Your task to perform on an android device: Go to Wikipedia Image 0: 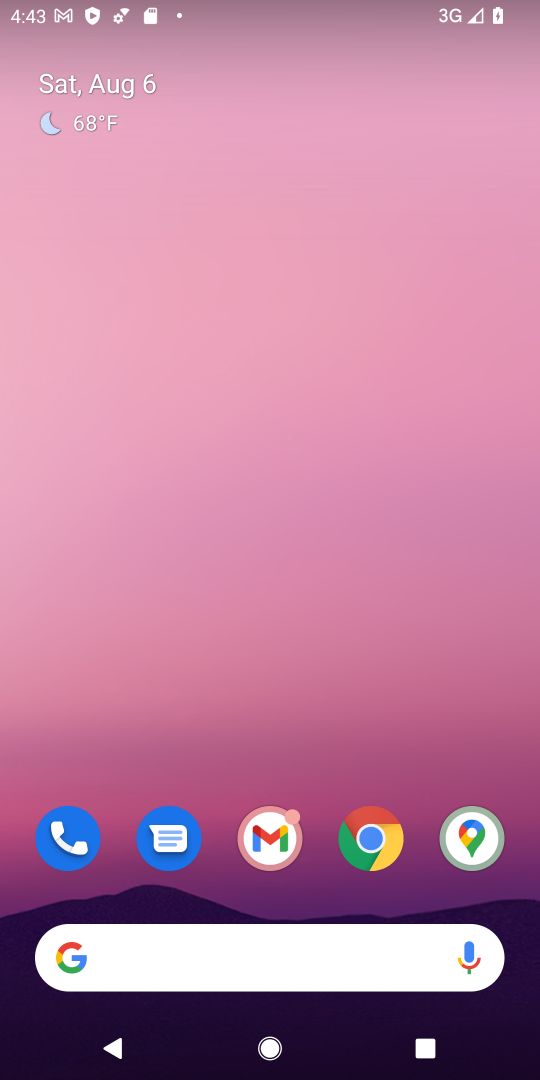
Step 0: press home button
Your task to perform on an android device: Go to Wikipedia Image 1: 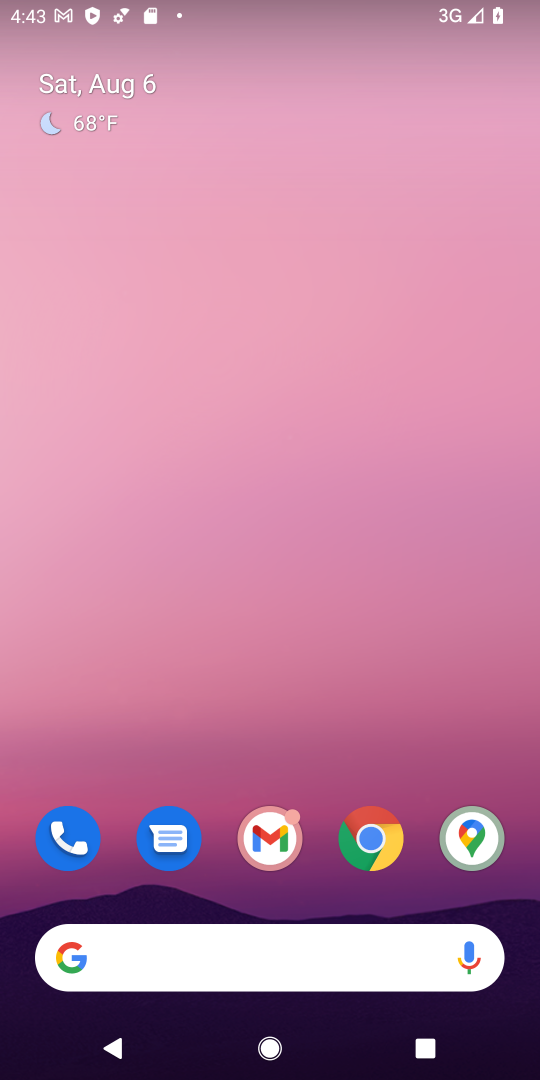
Step 1: click (361, 850)
Your task to perform on an android device: Go to Wikipedia Image 2: 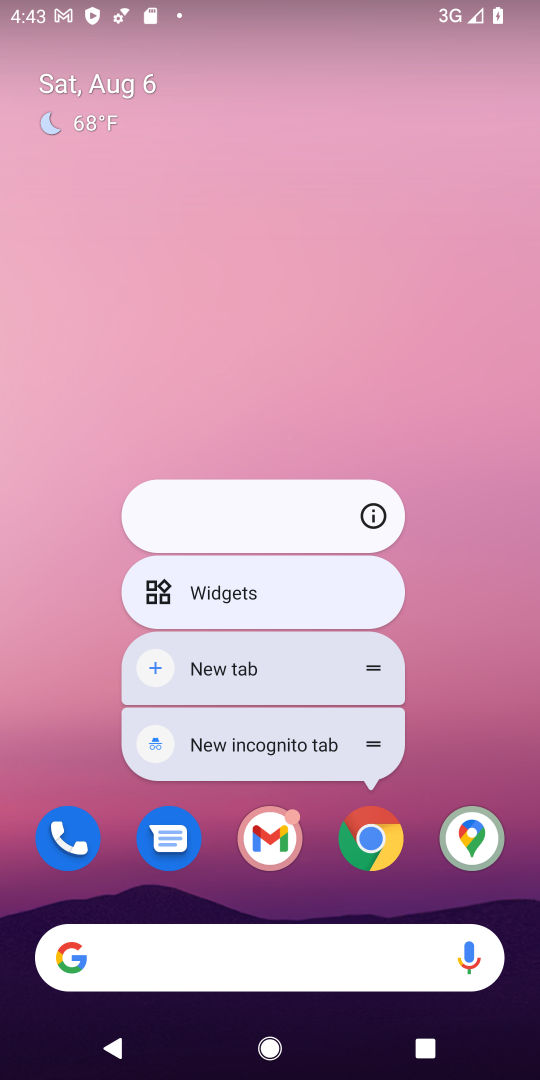
Step 2: click (382, 859)
Your task to perform on an android device: Go to Wikipedia Image 3: 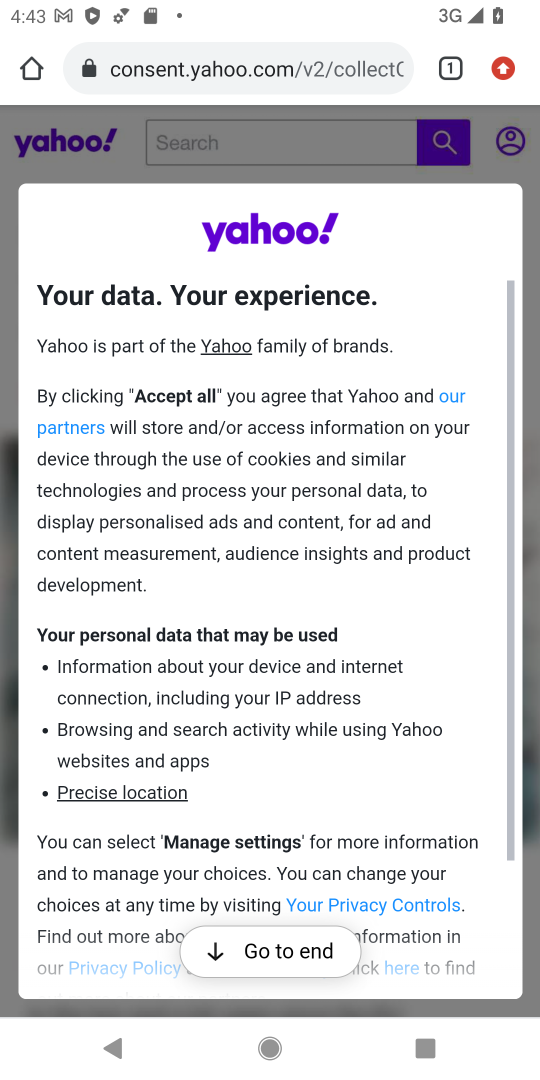
Step 3: click (450, 72)
Your task to perform on an android device: Go to Wikipedia Image 4: 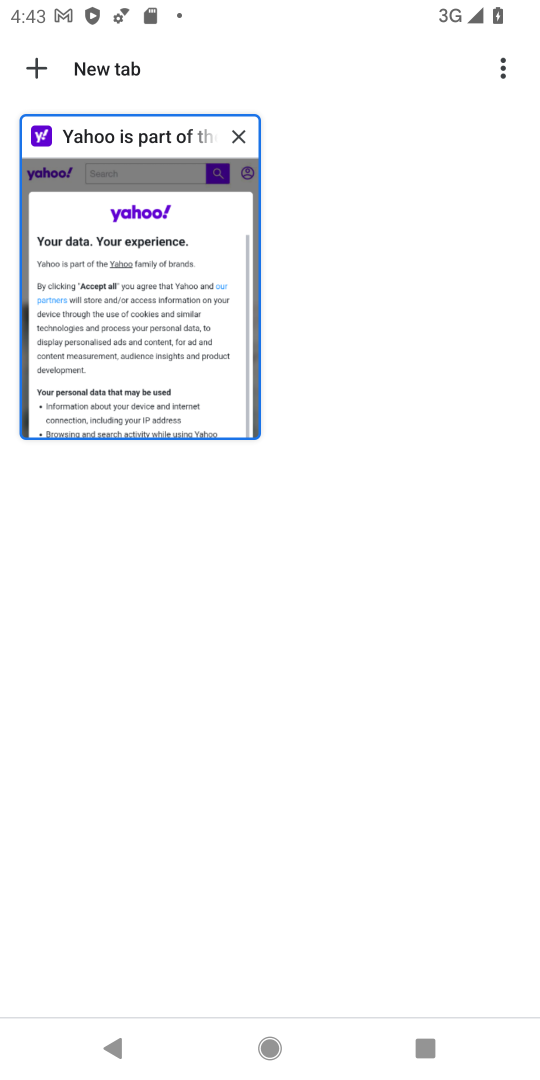
Step 4: click (232, 145)
Your task to perform on an android device: Go to Wikipedia Image 5: 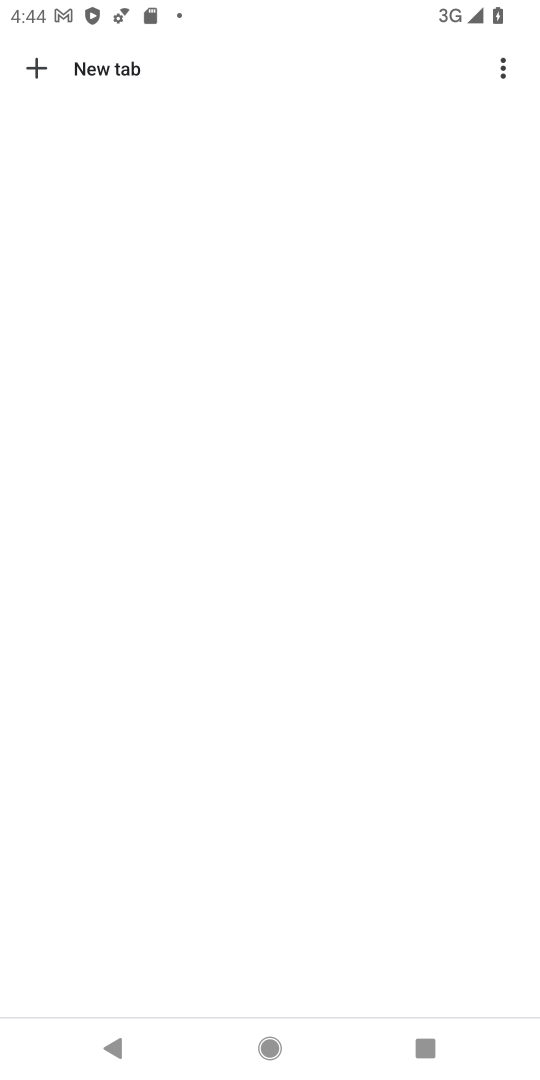
Step 5: click (77, 75)
Your task to perform on an android device: Go to Wikipedia Image 6: 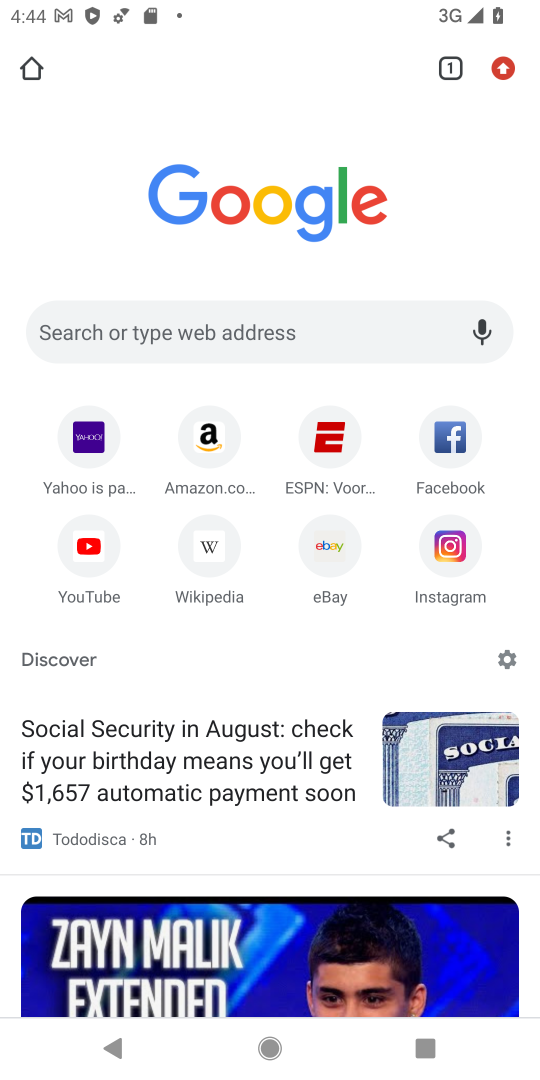
Step 6: click (210, 584)
Your task to perform on an android device: Go to Wikipedia Image 7: 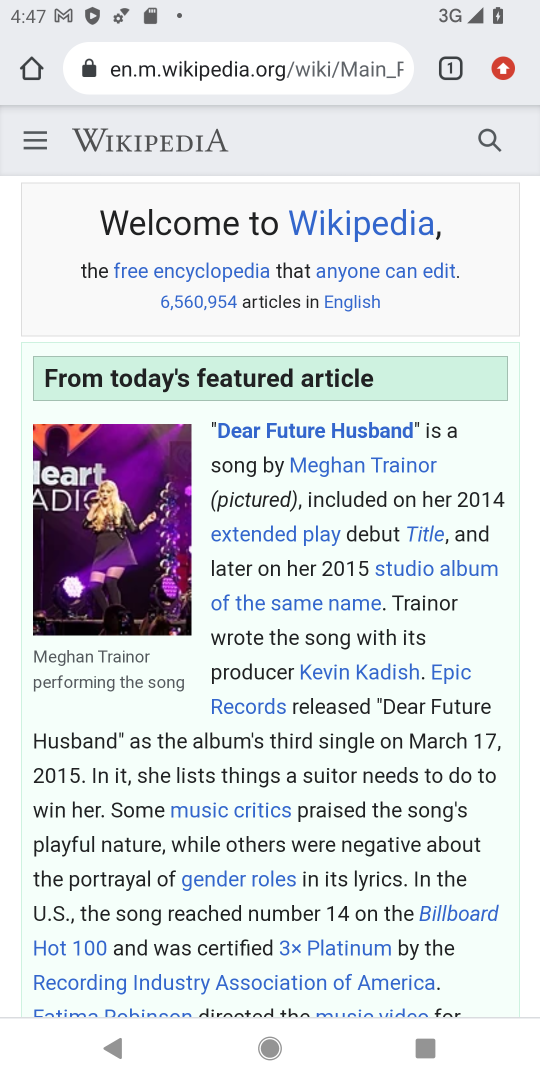
Step 7: task complete